Your task to perform on an android device: set an alarm Image 0: 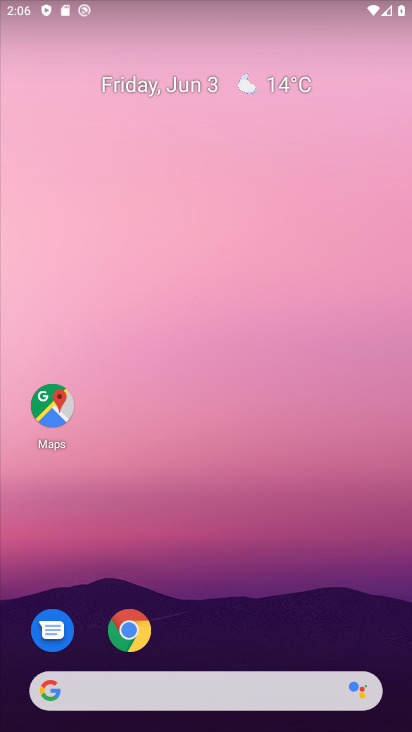
Step 0: drag from (171, 481) to (251, 176)
Your task to perform on an android device: set an alarm Image 1: 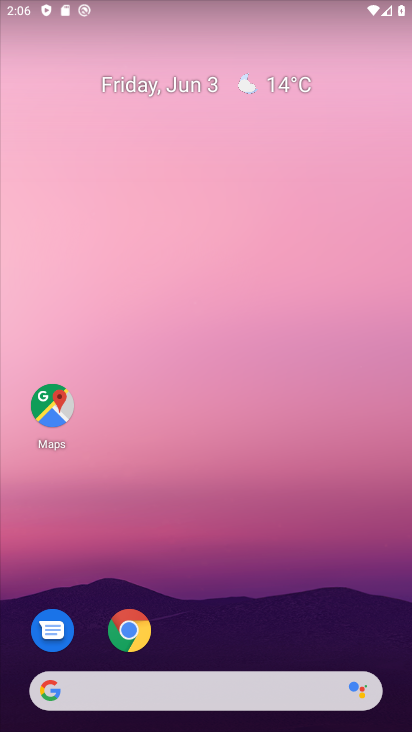
Step 1: drag from (197, 612) to (322, 89)
Your task to perform on an android device: set an alarm Image 2: 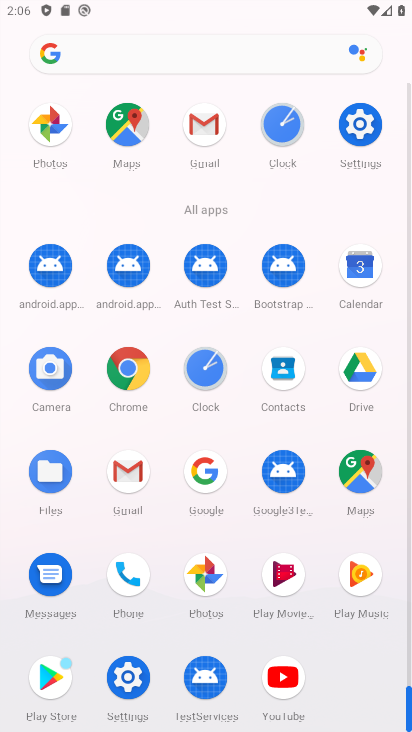
Step 2: click (209, 376)
Your task to perform on an android device: set an alarm Image 3: 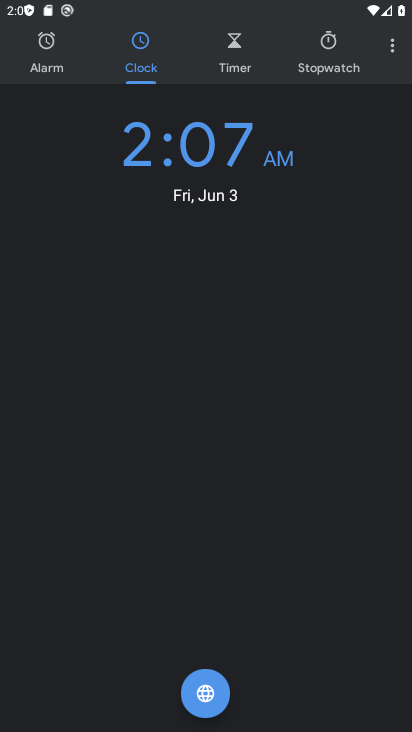
Step 3: click (76, 80)
Your task to perform on an android device: set an alarm Image 4: 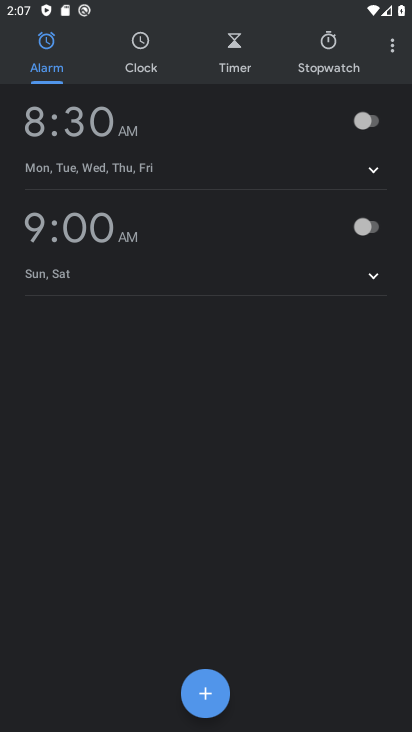
Step 4: click (371, 118)
Your task to perform on an android device: set an alarm Image 5: 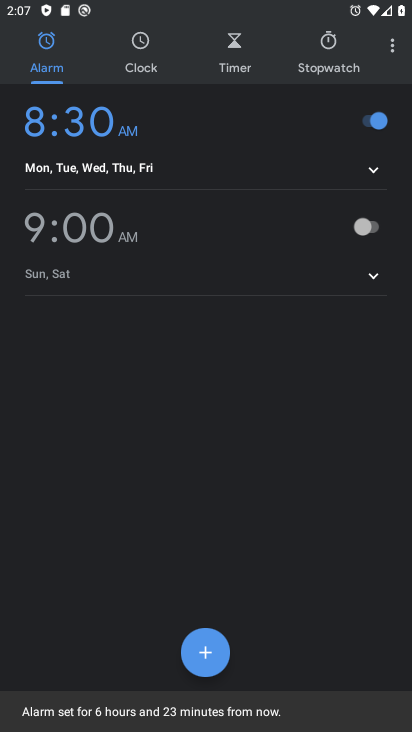
Step 5: task complete